Your task to perform on an android device: Open privacy settings Image 0: 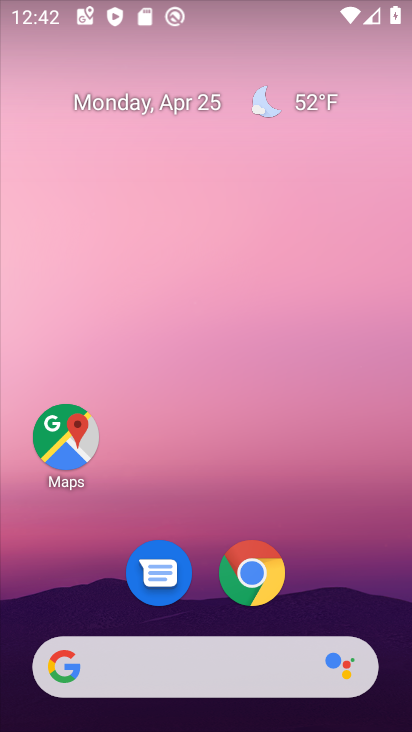
Step 0: click (245, 578)
Your task to perform on an android device: Open privacy settings Image 1: 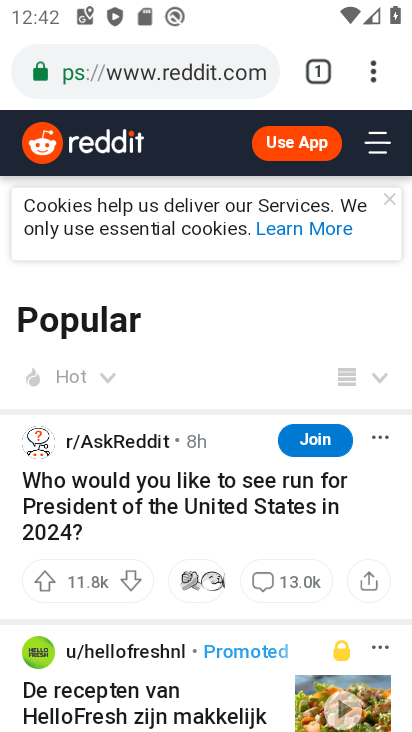
Step 1: click (380, 74)
Your task to perform on an android device: Open privacy settings Image 2: 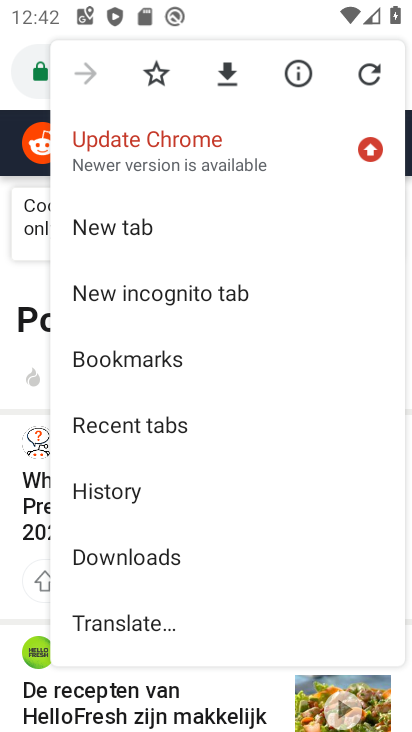
Step 2: drag from (196, 570) to (179, 250)
Your task to perform on an android device: Open privacy settings Image 3: 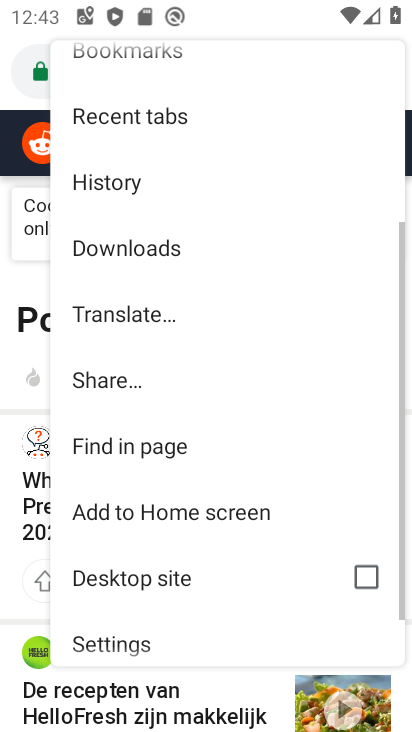
Step 3: press home button
Your task to perform on an android device: Open privacy settings Image 4: 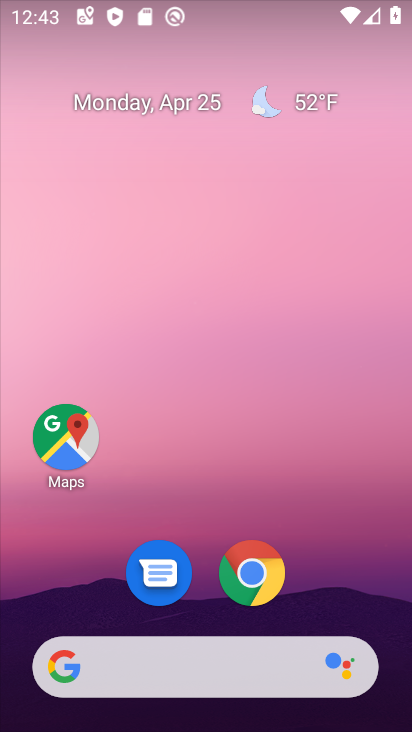
Step 4: drag from (353, 578) to (275, 56)
Your task to perform on an android device: Open privacy settings Image 5: 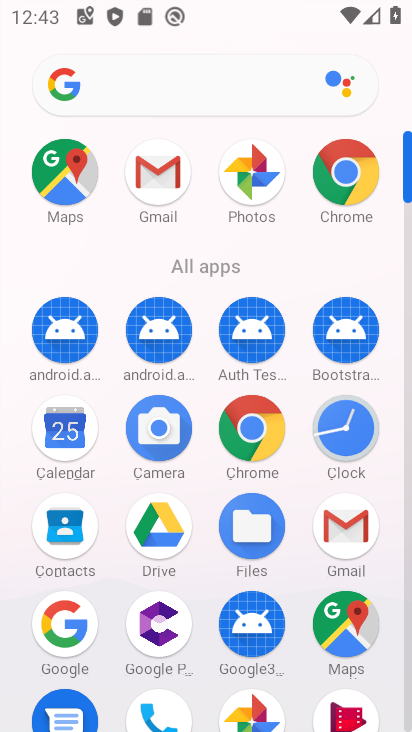
Step 5: drag from (211, 268) to (157, 32)
Your task to perform on an android device: Open privacy settings Image 6: 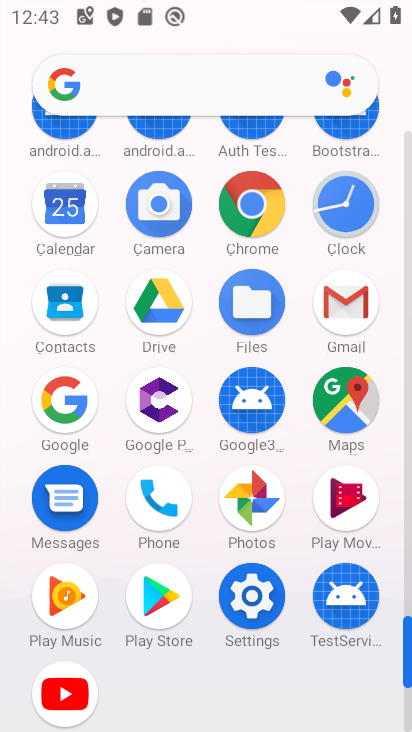
Step 6: click (238, 594)
Your task to perform on an android device: Open privacy settings Image 7: 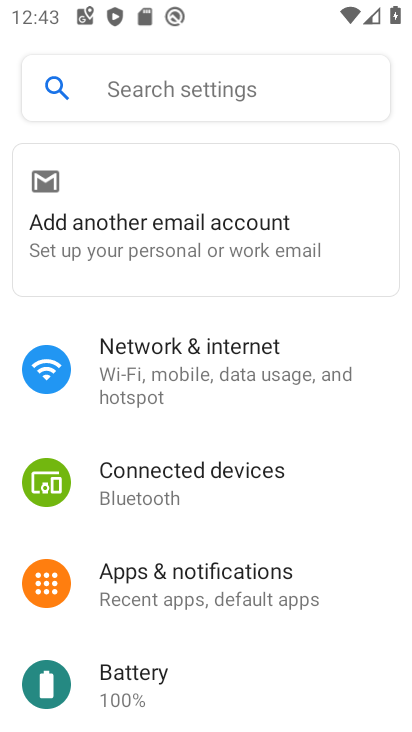
Step 7: drag from (211, 612) to (131, 310)
Your task to perform on an android device: Open privacy settings Image 8: 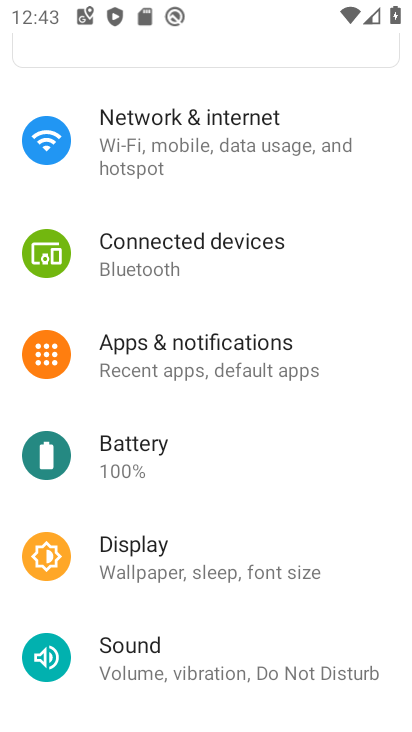
Step 8: drag from (189, 604) to (117, 217)
Your task to perform on an android device: Open privacy settings Image 9: 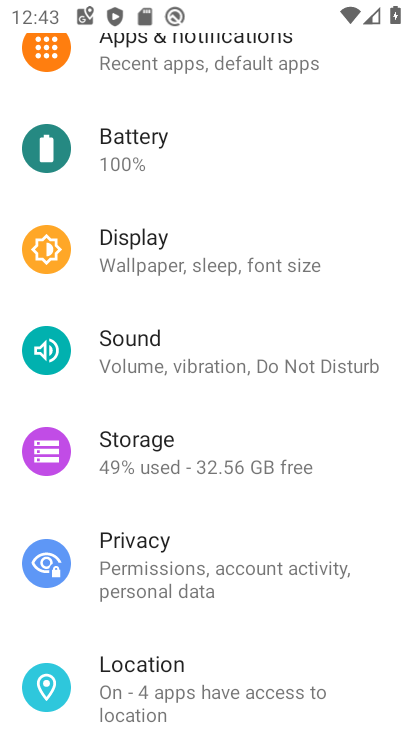
Step 9: click (153, 565)
Your task to perform on an android device: Open privacy settings Image 10: 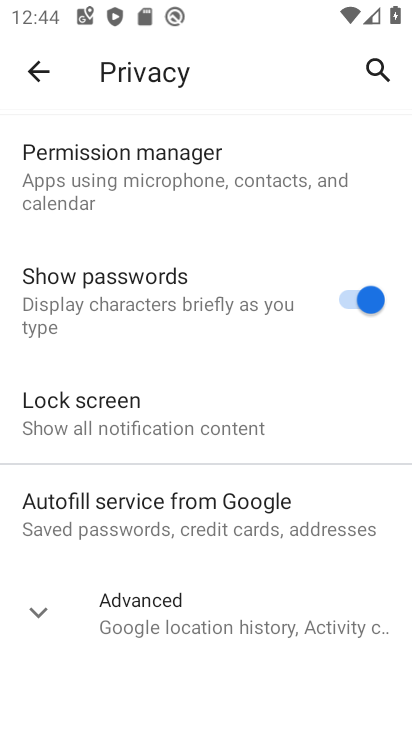
Step 10: task complete